Your task to perform on an android device: What's the top post on reddit right now? Image 0: 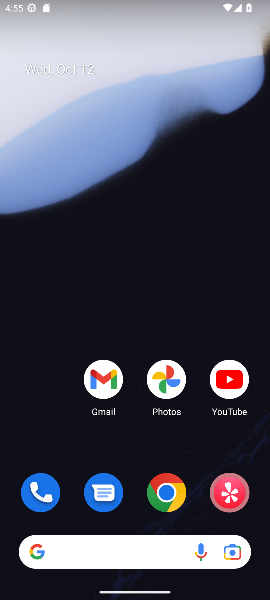
Step 0: click (167, 510)
Your task to perform on an android device: What's the top post on reddit right now? Image 1: 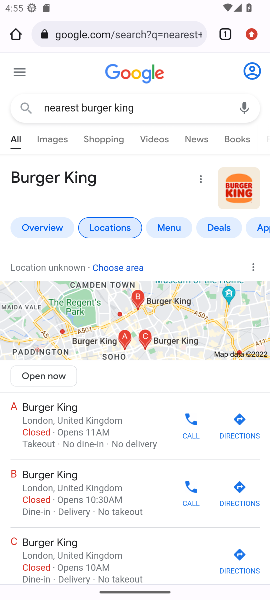
Step 1: click (133, 36)
Your task to perform on an android device: What's the top post on reddit right now? Image 2: 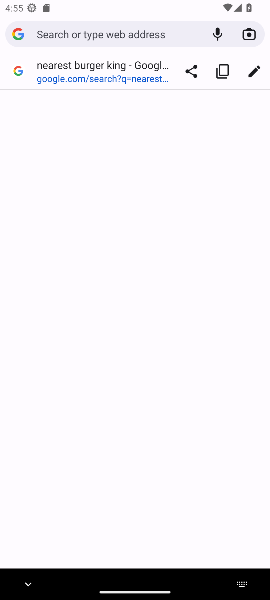
Step 2: type "the top post on reddit right now"
Your task to perform on an android device: What's the top post on reddit right now? Image 3: 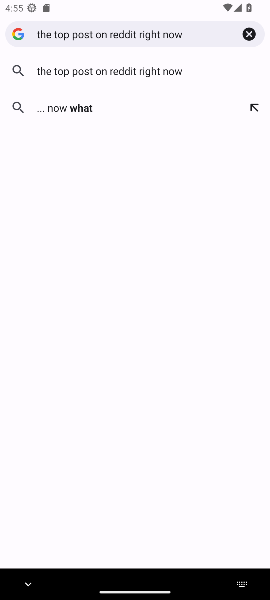
Step 3: click (107, 70)
Your task to perform on an android device: What's the top post on reddit right now? Image 4: 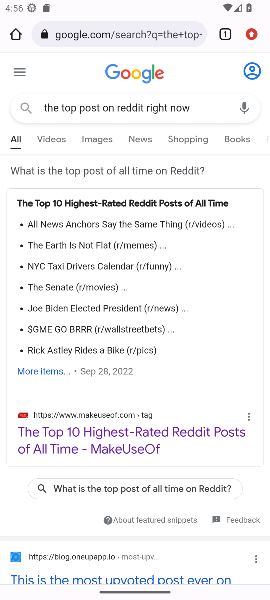
Step 4: drag from (96, 413) to (125, 203)
Your task to perform on an android device: What's the top post on reddit right now? Image 5: 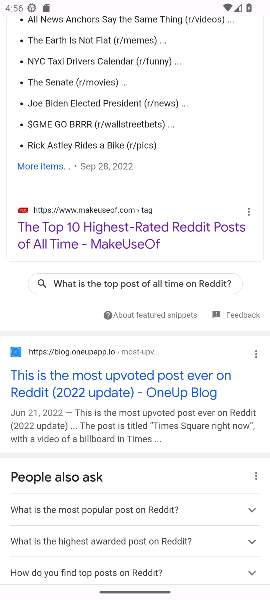
Step 5: click (74, 385)
Your task to perform on an android device: What's the top post on reddit right now? Image 6: 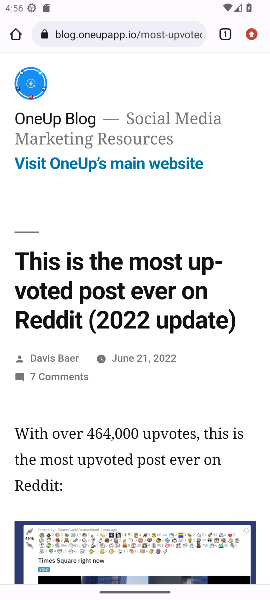
Step 6: task complete